Your task to perform on an android device: toggle priority inbox in the gmail app Image 0: 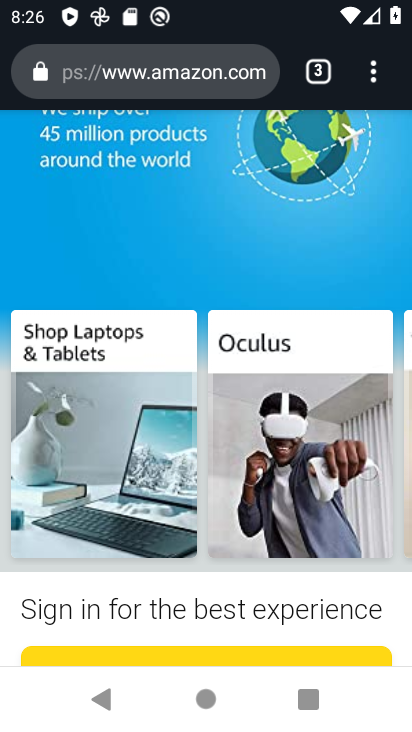
Step 0: press home button
Your task to perform on an android device: toggle priority inbox in the gmail app Image 1: 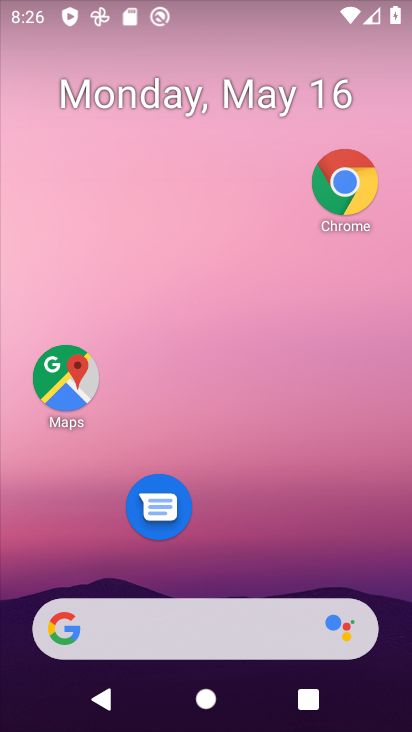
Step 1: drag from (322, 523) to (333, 60)
Your task to perform on an android device: toggle priority inbox in the gmail app Image 2: 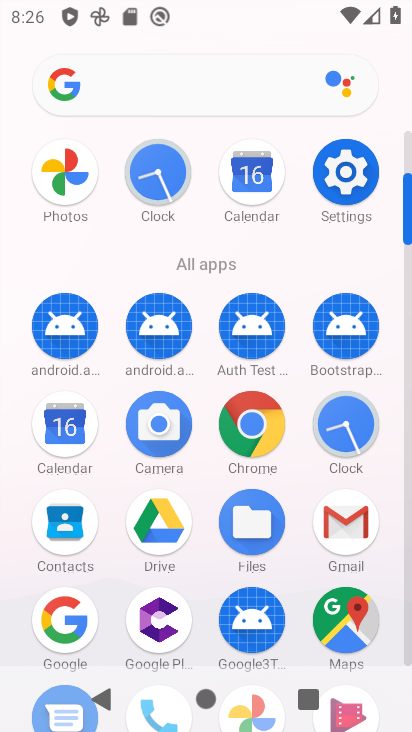
Step 2: drag from (219, 261) to (228, 3)
Your task to perform on an android device: toggle priority inbox in the gmail app Image 3: 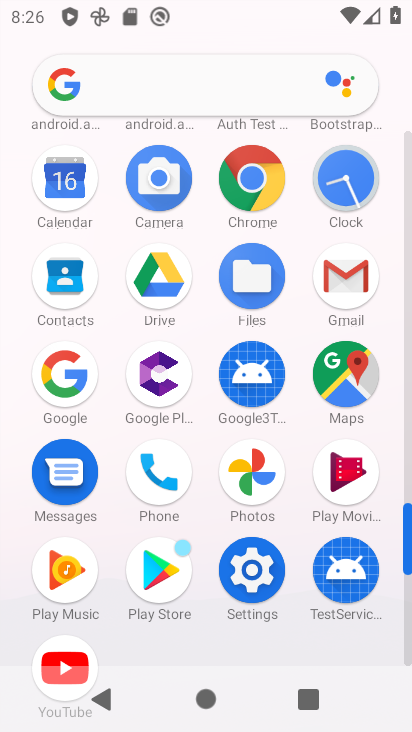
Step 3: click (337, 271)
Your task to perform on an android device: toggle priority inbox in the gmail app Image 4: 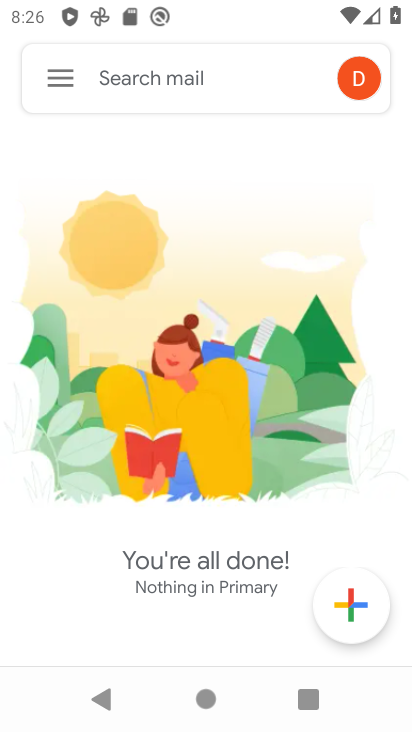
Step 4: click (50, 85)
Your task to perform on an android device: toggle priority inbox in the gmail app Image 5: 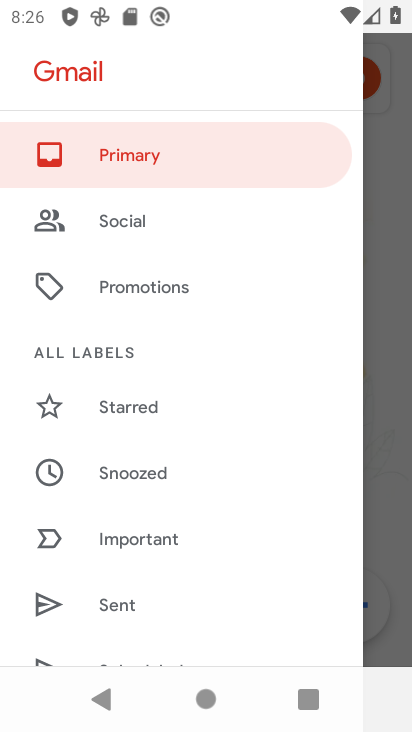
Step 5: drag from (247, 512) to (281, 143)
Your task to perform on an android device: toggle priority inbox in the gmail app Image 6: 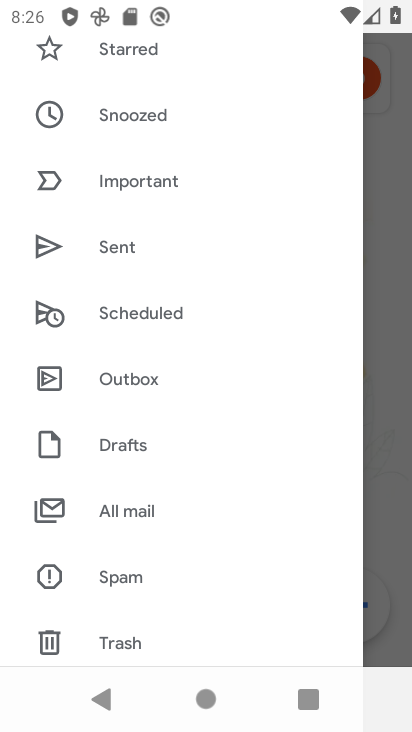
Step 6: drag from (215, 574) to (242, 270)
Your task to perform on an android device: toggle priority inbox in the gmail app Image 7: 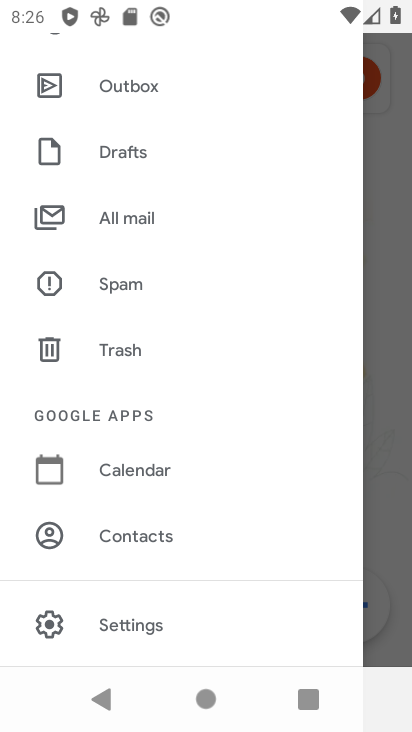
Step 7: click (138, 626)
Your task to perform on an android device: toggle priority inbox in the gmail app Image 8: 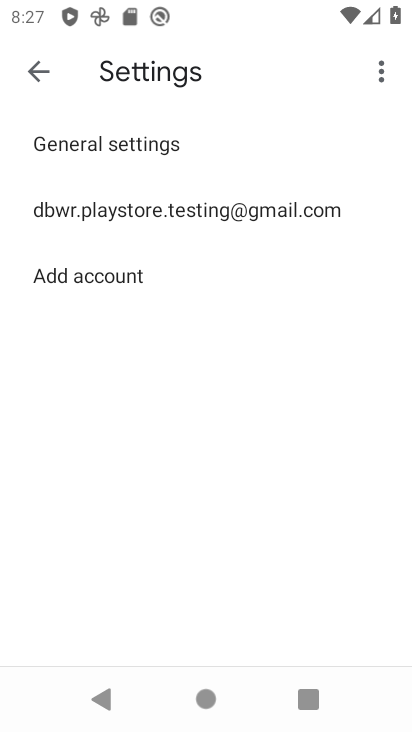
Step 8: click (224, 207)
Your task to perform on an android device: toggle priority inbox in the gmail app Image 9: 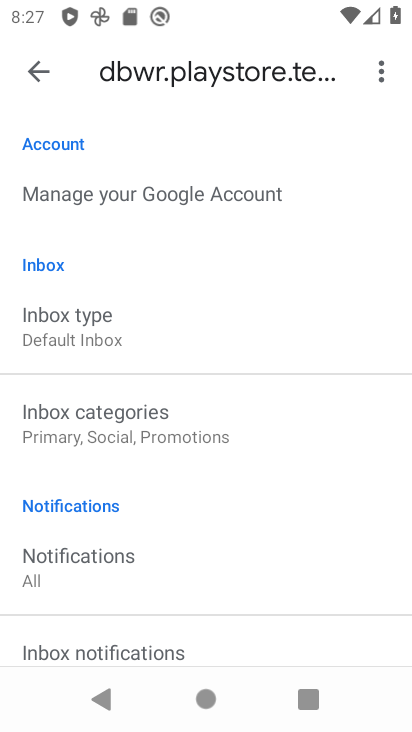
Step 9: drag from (273, 610) to (232, 587)
Your task to perform on an android device: toggle priority inbox in the gmail app Image 10: 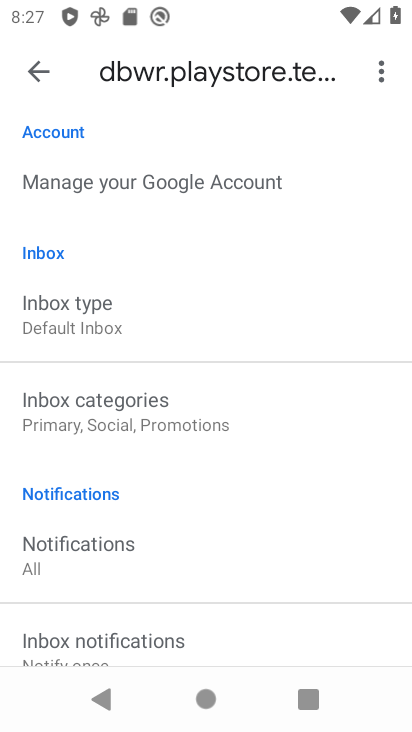
Step 10: click (83, 318)
Your task to perform on an android device: toggle priority inbox in the gmail app Image 11: 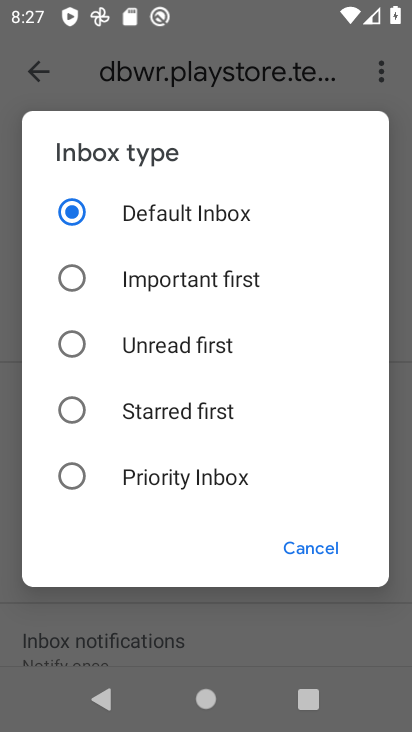
Step 11: click (159, 477)
Your task to perform on an android device: toggle priority inbox in the gmail app Image 12: 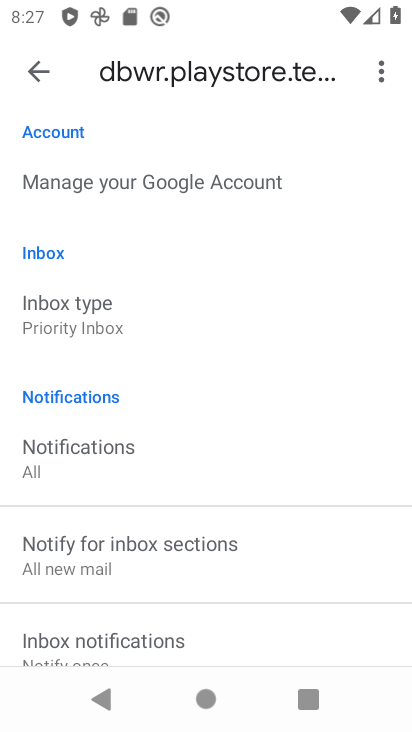
Step 12: task complete